Your task to perform on an android device: Go to sound settings Image 0: 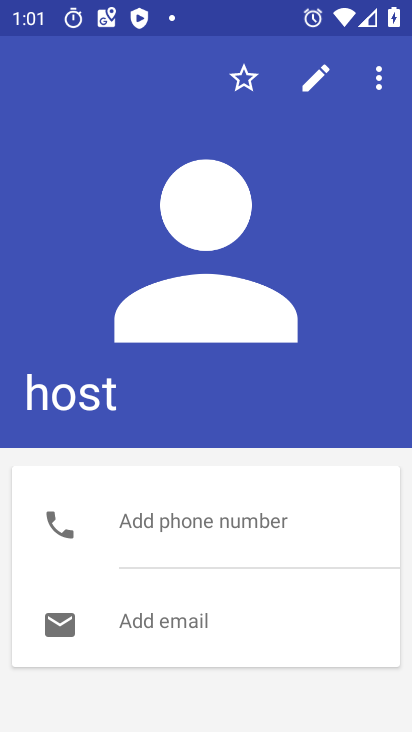
Step 0: press home button
Your task to perform on an android device: Go to sound settings Image 1: 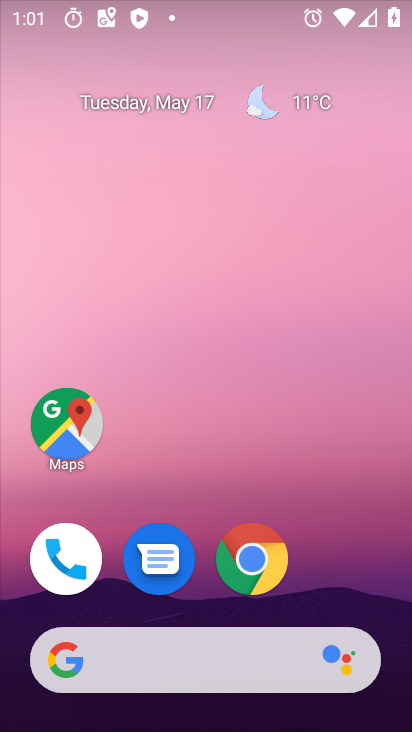
Step 1: drag from (319, 450) to (319, 159)
Your task to perform on an android device: Go to sound settings Image 2: 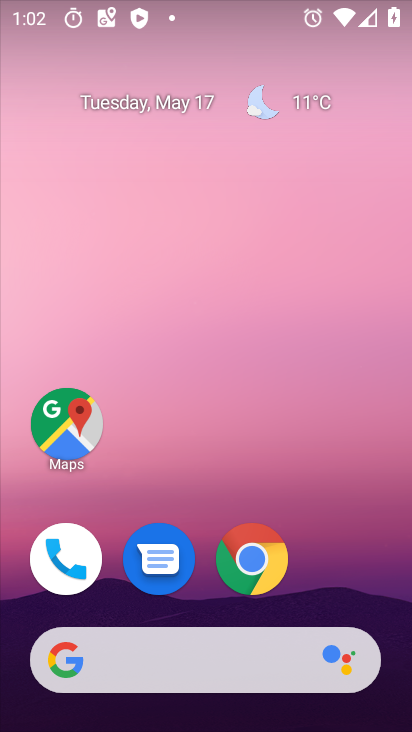
Step 2: drag from (336, 459) to (350, 123)
Your task to perform on an android device: Go to sound settings Image 3: 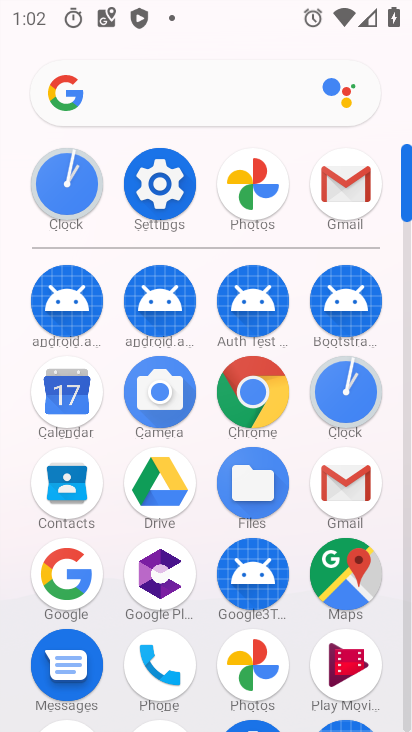
Step 3: click (154, 191)
Your task to perform on an android device: Go to sound settings Image 4: 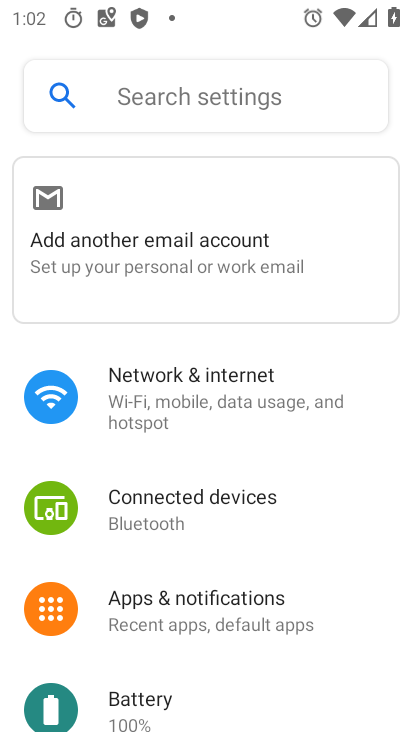
Step 4: drag from (202, 686) to (271, 146)
Your task to perform on an android device: Go to sound settings Image 5: 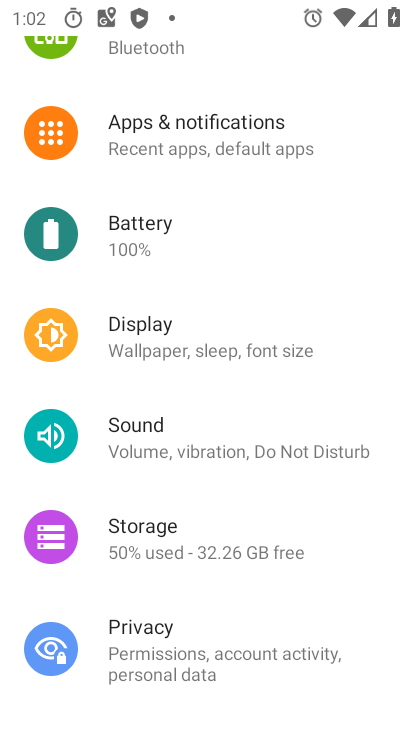
Step 5: click (171, 449)
Your task to perform on an android device: Go to sound settings Image 6: 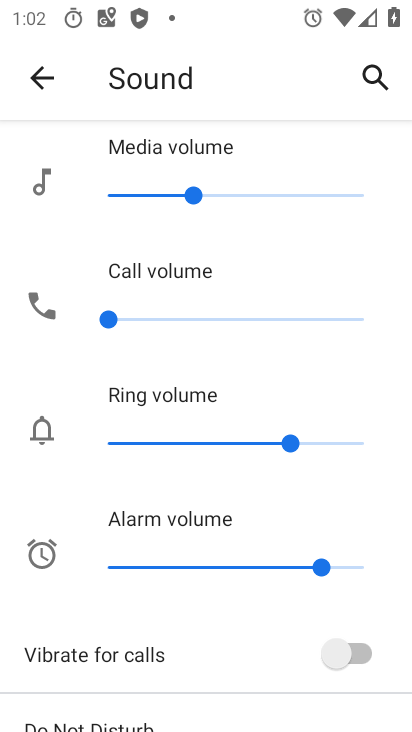
Step 6: task complete